Your task to perform on an android device: Go to Android settings Image 0: 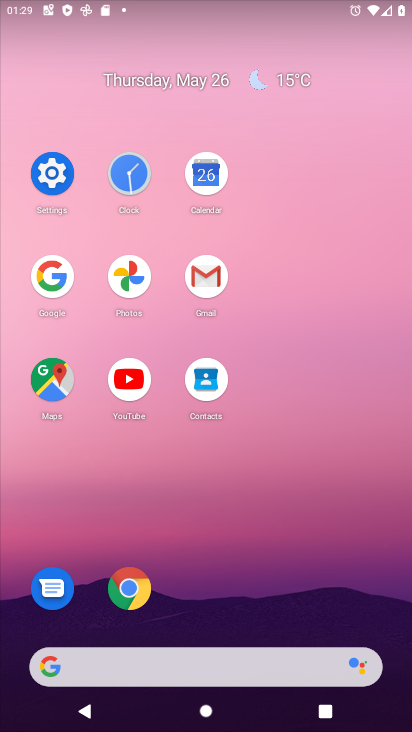
Step 0: click (55, 169)
Your task to perform on an android device: Go to Android settings Image 1: 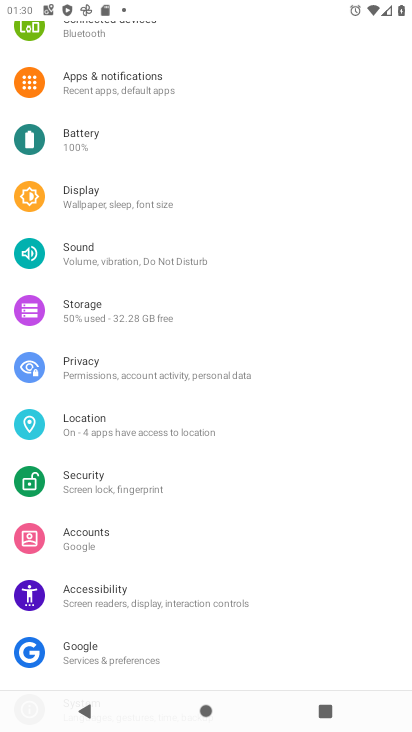
Step 1: task complete